Your task to perform on an android device: allow notifications from all sites in the chrome app Image 0: 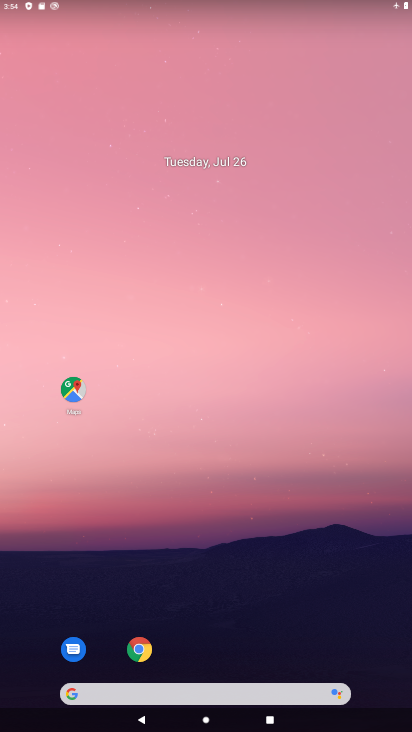
Step 0: click (136, 657)
Your task to perform on an android device: allow notifications from all sites in the chrome app Image 1: 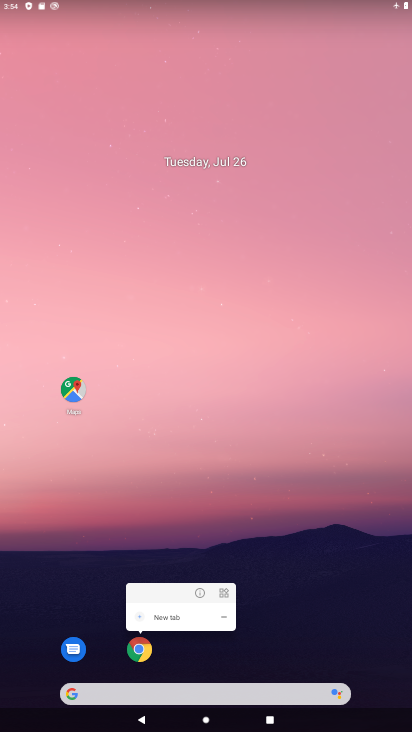
Step 1: click (140, 655)
Your task to perform on an android device: allow notifications from all sites in the chrome app Image 2: 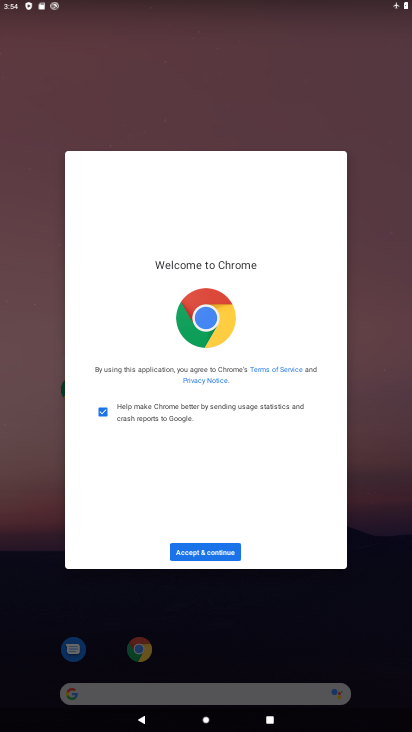
Step 2: click (218, 557)
Your task to perform on an android device: allow notifications from all sites in the chrome app Image 3: 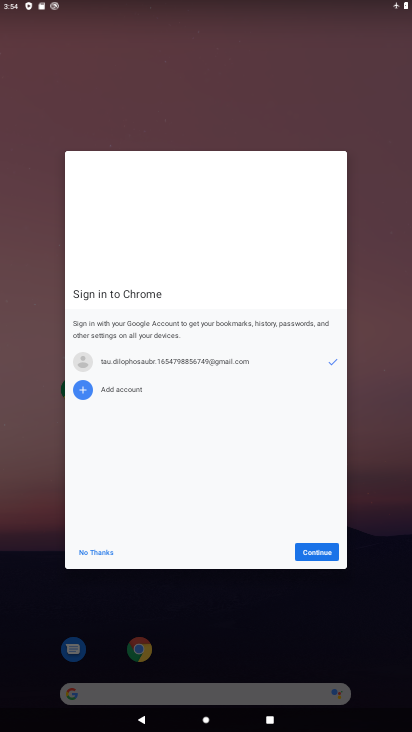
Step 3: click (309, 546)
Your task to perform on an android device: allow notifications from all sites in the chrome app Image 4: 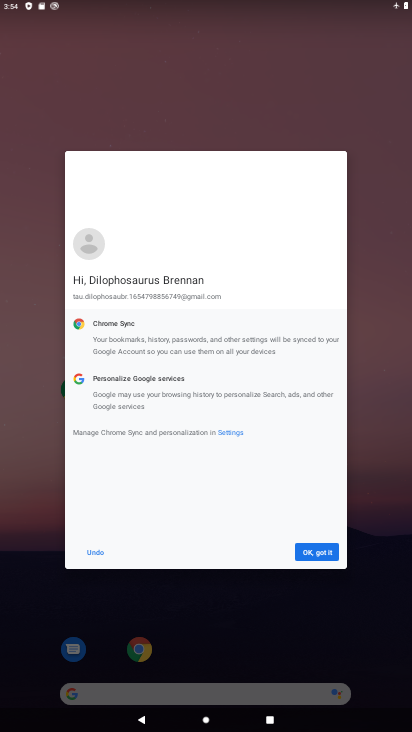
Step 4: click (309, 546)
Your task to perform on an android device: allow notifications from all sites in the chrome app Image 5: 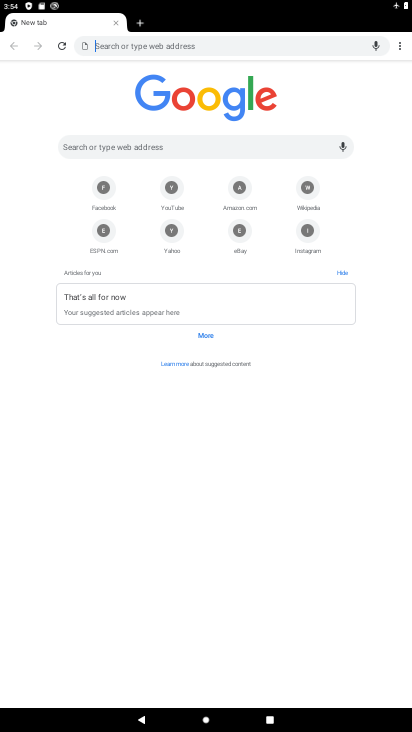
Step 5: click (397, 43)
Your task to perform on an android device: allow notifications from all sites in the chrome app Image 6: 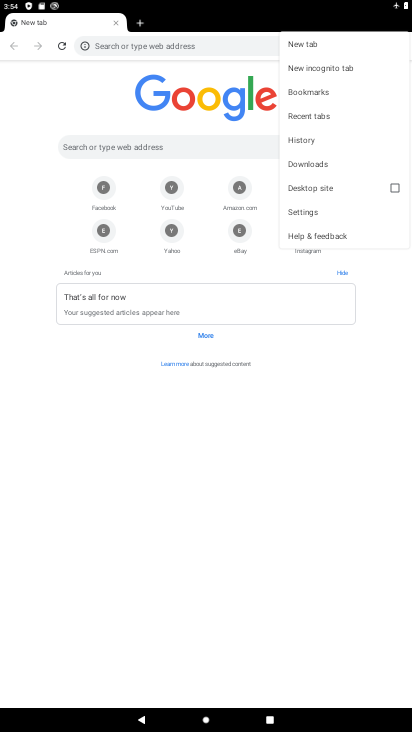
Step 6: click (318, 211)
Your task to perform on an android device: allow notifications from all sites in the chrome app Image 7: 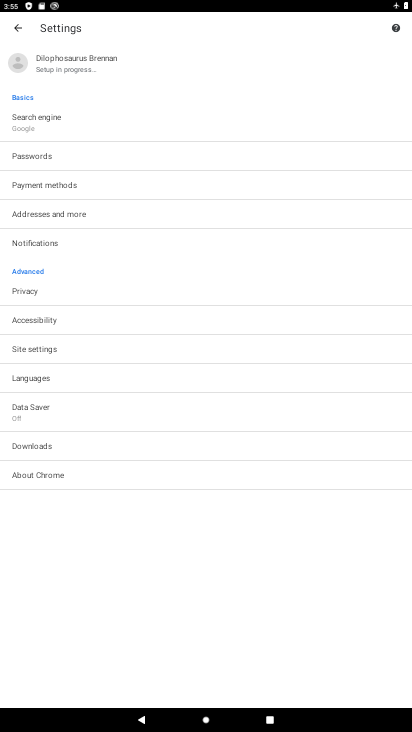
Step 7: click (66, 352)
Your task to perform on an android device: allow notifications from all sites in the chrome app Image 8: 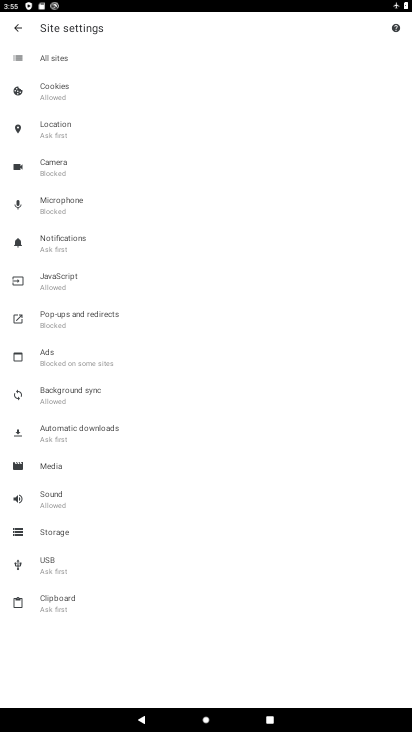
Step 8: click (54, 57)
Your task to perform on an android device: allow notifications from all sites in the chrome app Image 9: 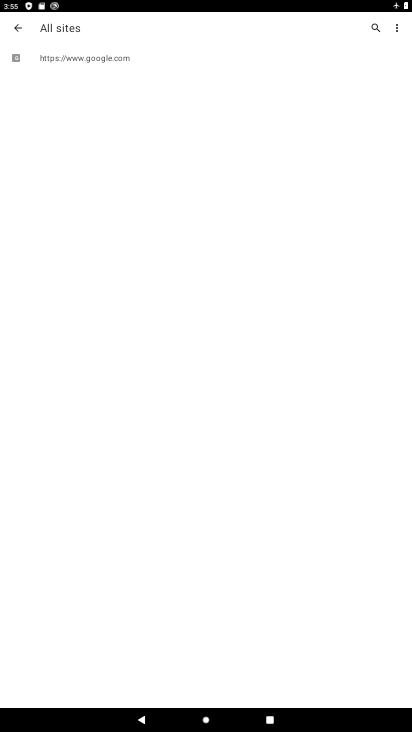
Step 9: click (103, 60)
Your task to perform on an android device: allow notifications from all sites in the chrome app Image 10: 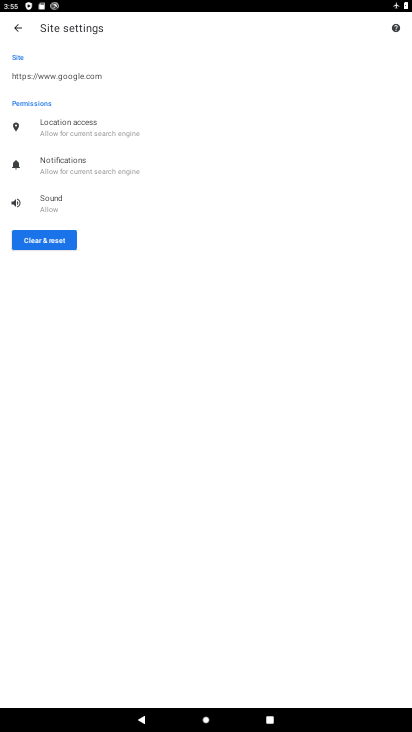
Step 10: click (107, 164)
Your task to perform on an android device: allow notifications from all sites in the chrome app Image 11: 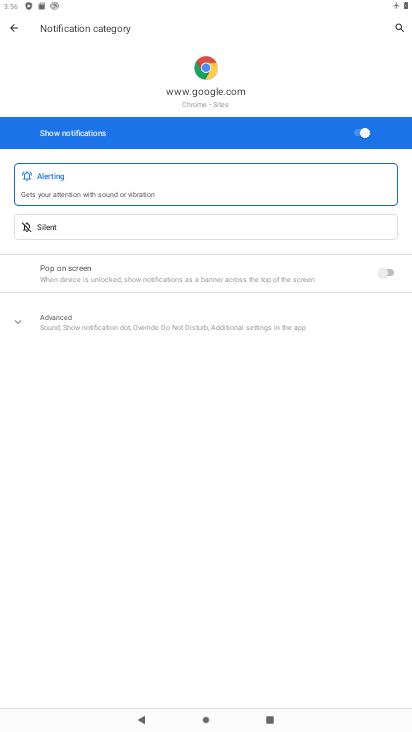
Step 11: task complete